Your task to perform on an android device: open chrome privacy settings Image 0: 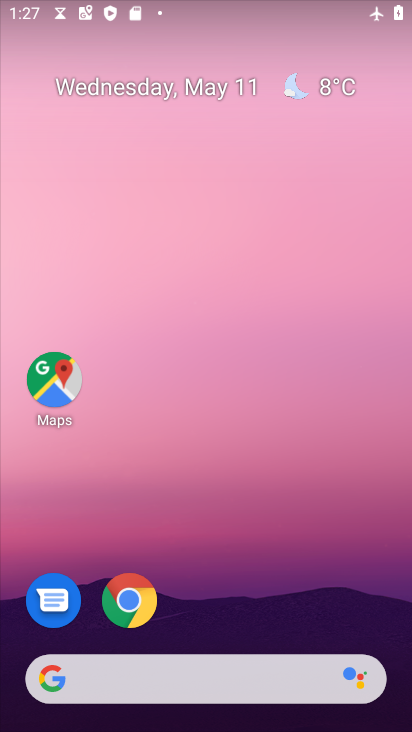
Step 0: click (131, 593)
Your task to perform on an android device: open chrome privacy settings Image 1: 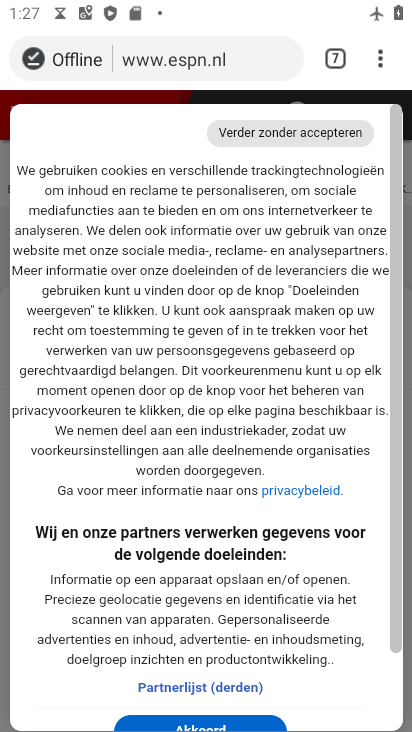
Step 1: click (379, 52)
Your task to perform on an android device: open chrome privacy settings Image 2: 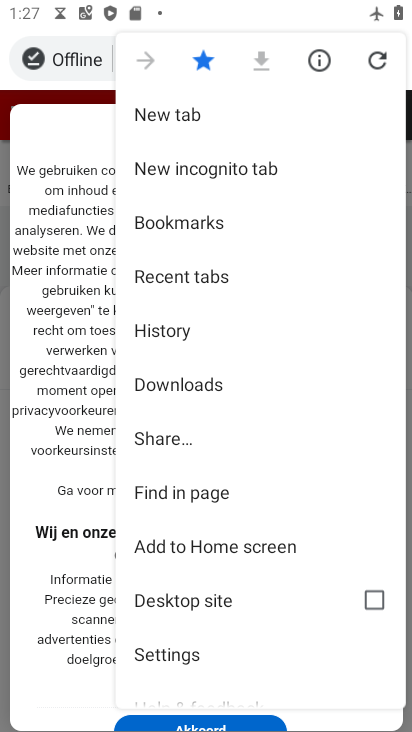
Step 2: click (195, 648)
Your task to perform on an android device: open chrome privacy settings Image 3: 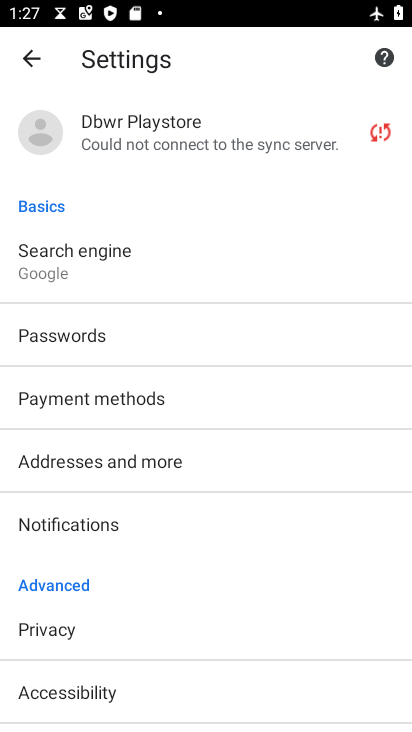
Step 3: click (142, 640)
Your task to perform on an android device: open chrome privacy settings Image 4: 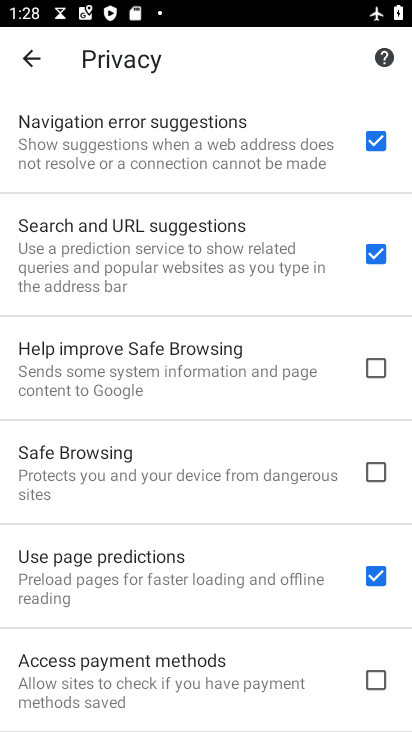
Step 4: task complete